Your task to perform on an android device: turn off javascript in the chrome app Image 0: 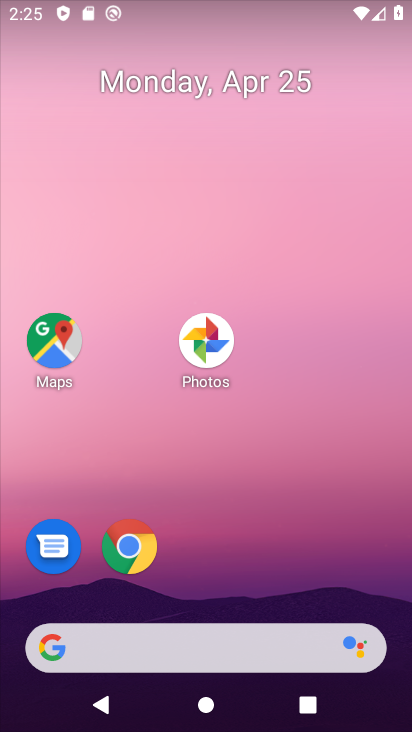
Step 0: click (297, 327)
Your task to perform on an android device: turn off javascript in the chrome app Image 1: 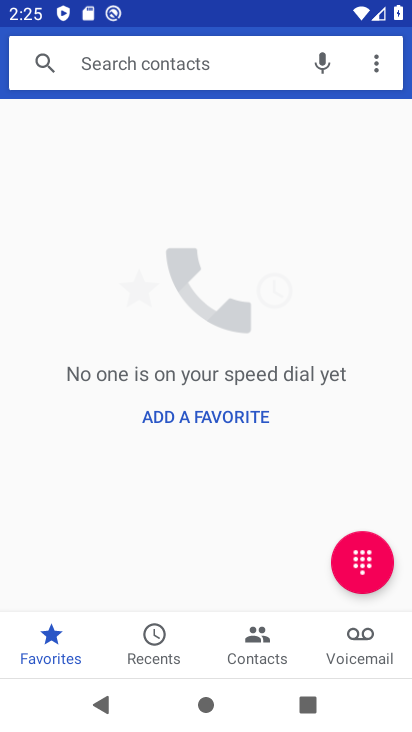
Step 1: press home button
Your task to perform on an android device: turn off javascript in the chrome app Image 2: 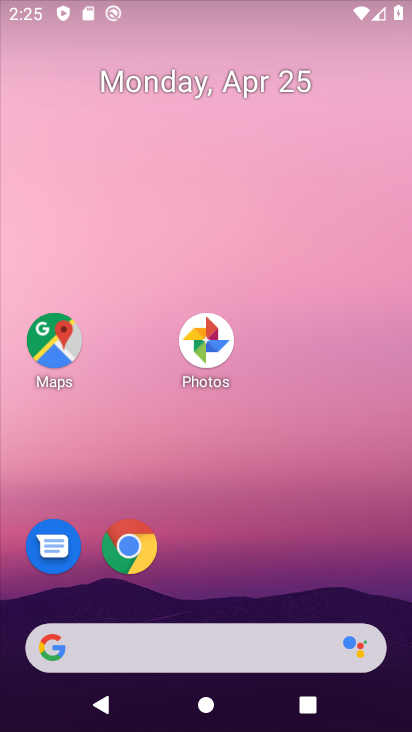
Step 2: drag from (218, 610) to (291, 296)
Your task to perform on an android device: turn off javascript in the chrome app Image 3: 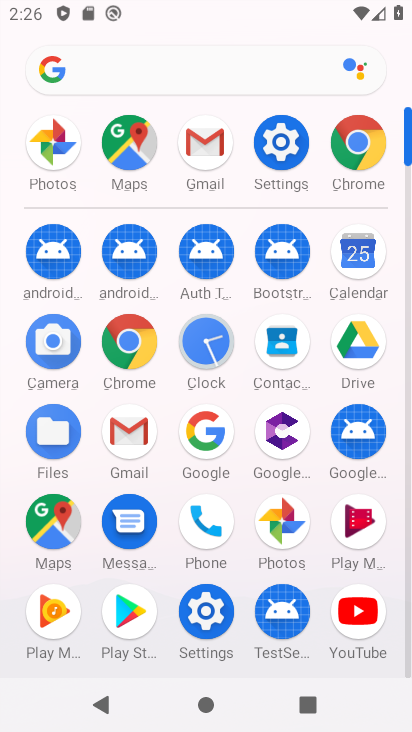
Step 3: click (121, 347)
Your task to perform on an android device: turn off javascript in the chrome app Image 4: 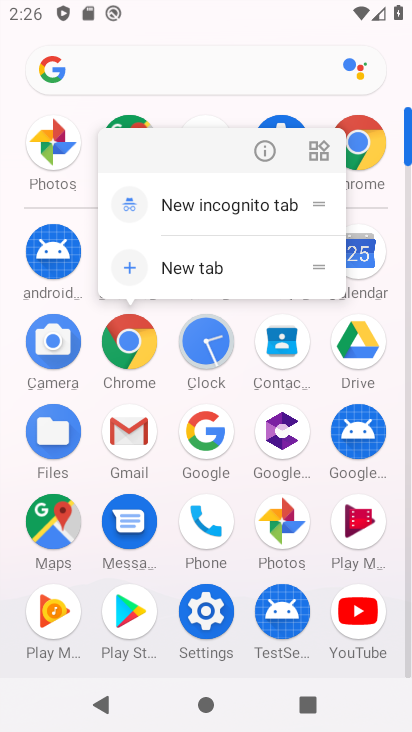
Step 4: click (117, 342)
Your task to perform on an android device: turn off javascript in the chrome app Image 5: 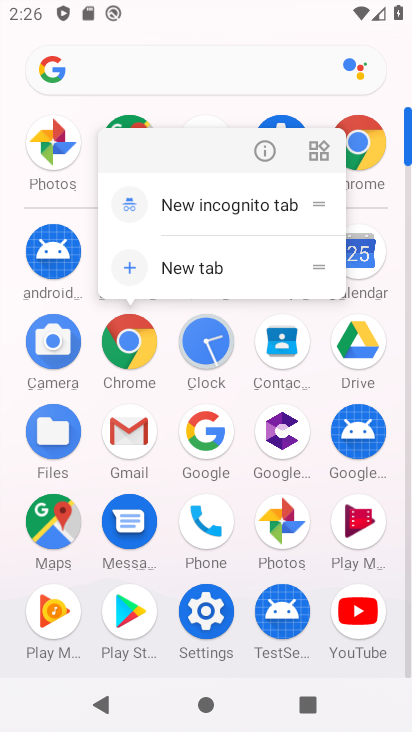
Step 5: click (117, 342)
Your task to perform on an android device: turn off javascript in the chrome app Image 6: 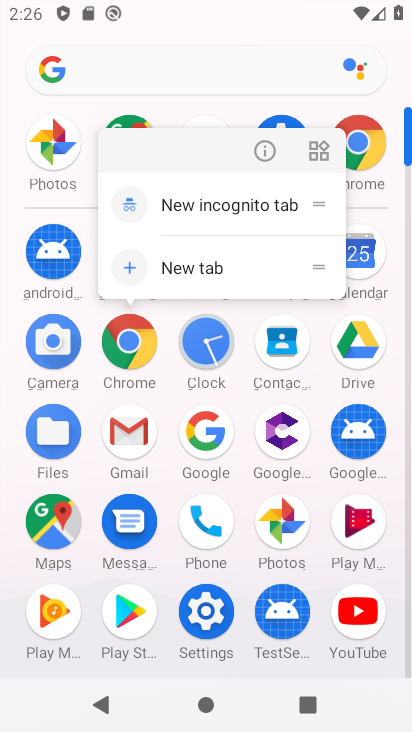
Step 6: click (117, 342)
Your task to perform on an android device: turn off javascript in the chrome app Image 7: 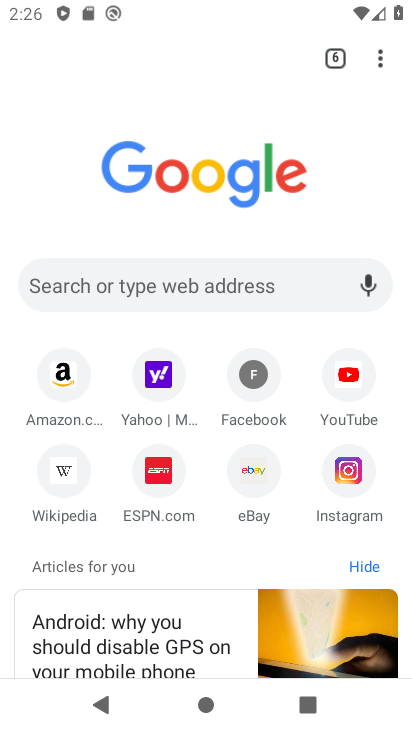
Step 7: click (359, 60)
Your task to perform on an android device: turn off javascript in the chrome app Image 8: 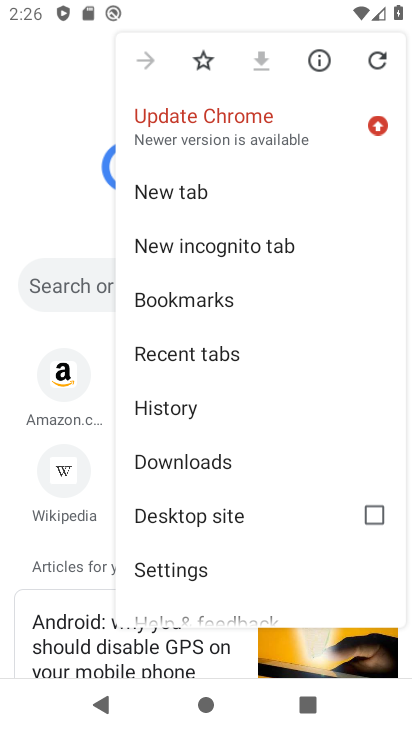
Step 8: click (167, 567)
Your task to perform on an android device: turn off javascript in the chrome app Image 9: 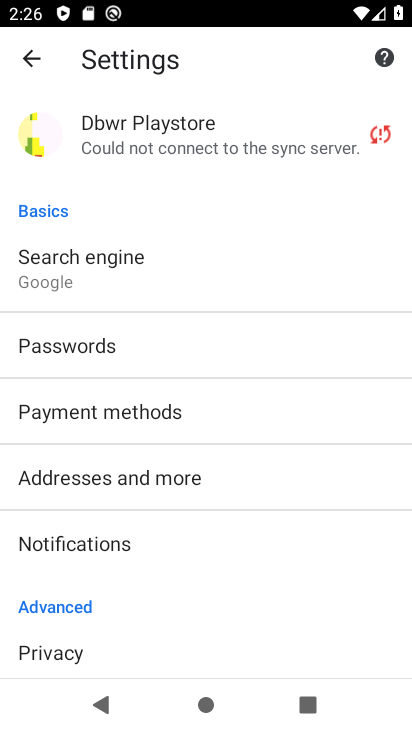
Step 9: drag from (165, 622) to (227, 201)
Your task to perform on an android device: turn off javascript in the chrome app Image 10: 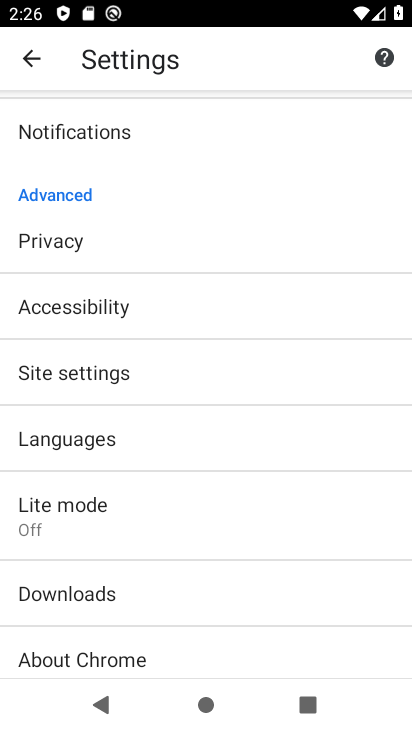
Step 10: click (123, 373)
Your task to perform on an android device: turn off javascript in the chrome app Image 11: 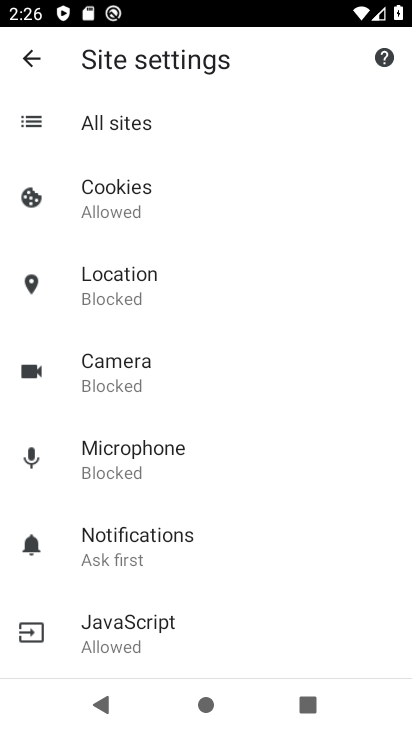
Step 11: click (100, 614)
Your task to perform on an android device: turn off javascript in the chrome app Image 12: 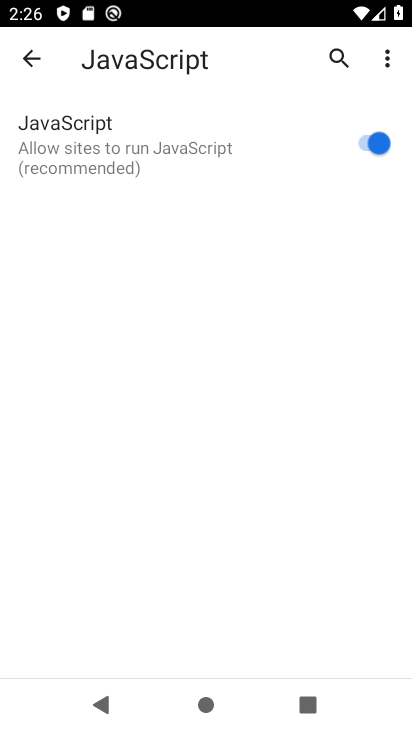
Step 12: click (373, 145)
Your task to perform on an android device: turn off javascript in the chrome app Image 13: 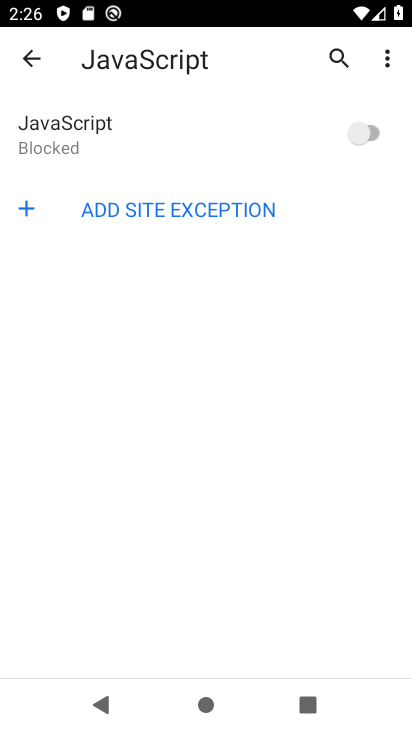
Step 13: task complete